Your task to perform on an android device: see creations saved in the google photos Image 0: 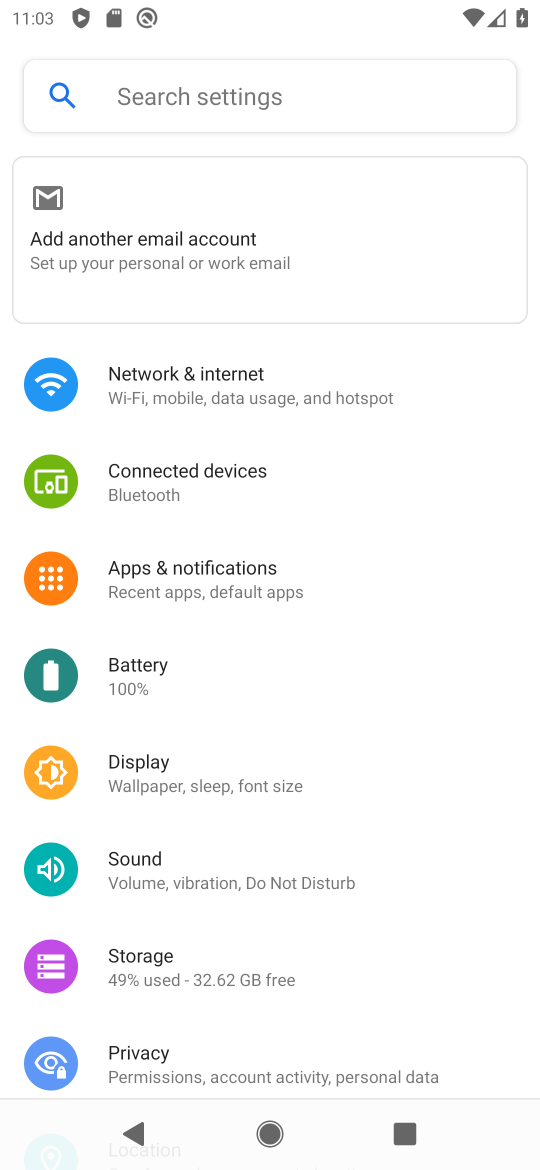
Step 0: press home button
Your task to perform on an android device: see creations saved in the google photos Image 1: 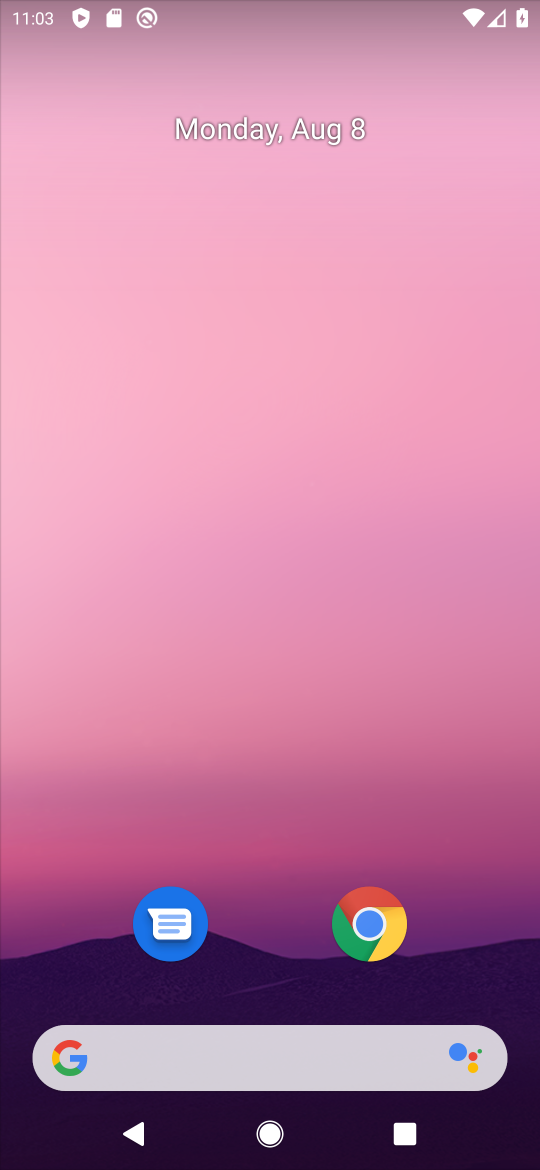
Step 1: drag from (257, 998) to (189, 232)
Your task to perform on an android device: see creations saved in the google photos Image 2: 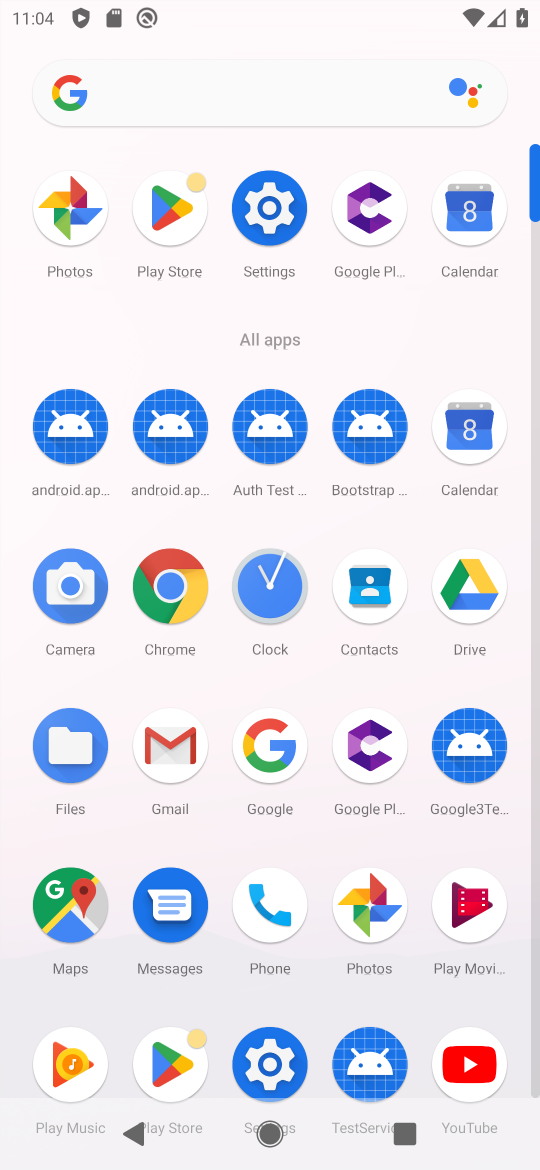
Step 2: click (352, 888)
Your task to perform on an android device: see creations saved in the google photos Image 3: 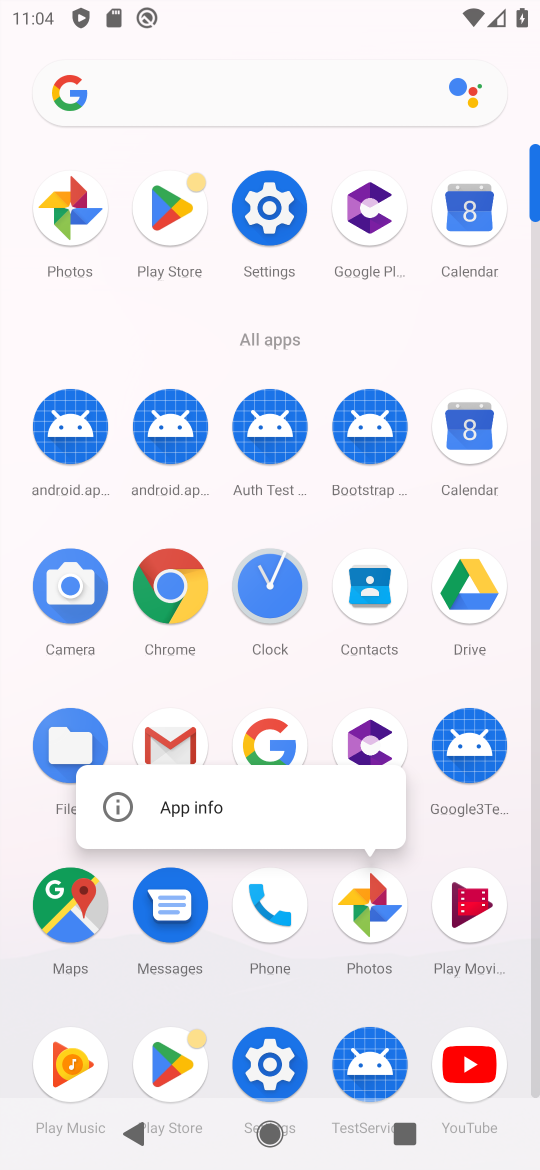
Step 3: click (378, 923)
Your task to perform on an android device: see creations saved in the google photos Image 4: 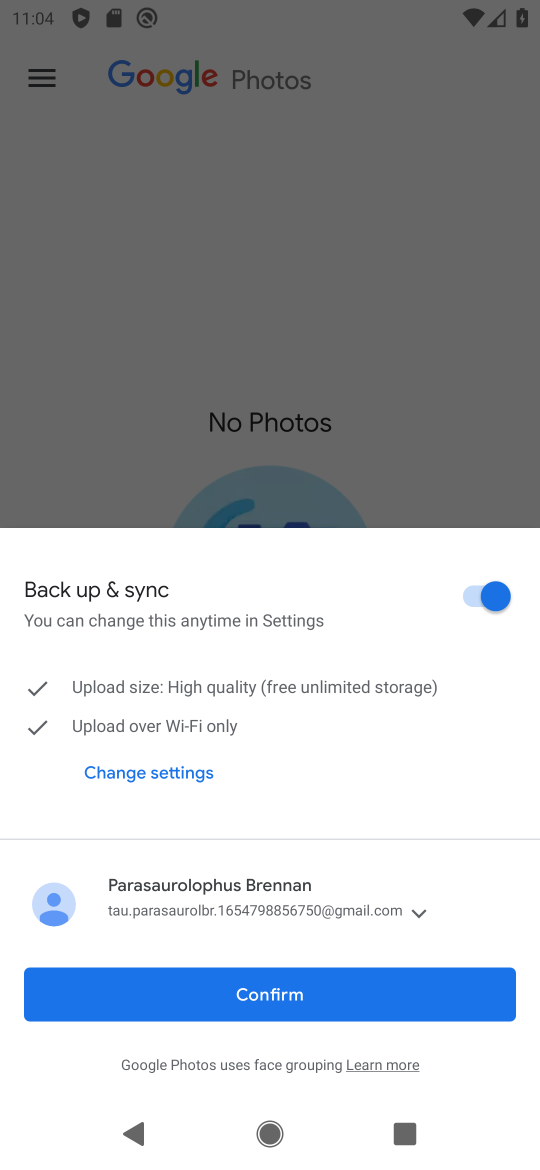
Step 4: click (288, 972)
Your task to perform on an android device: see creations saved in the google photos Image 5: 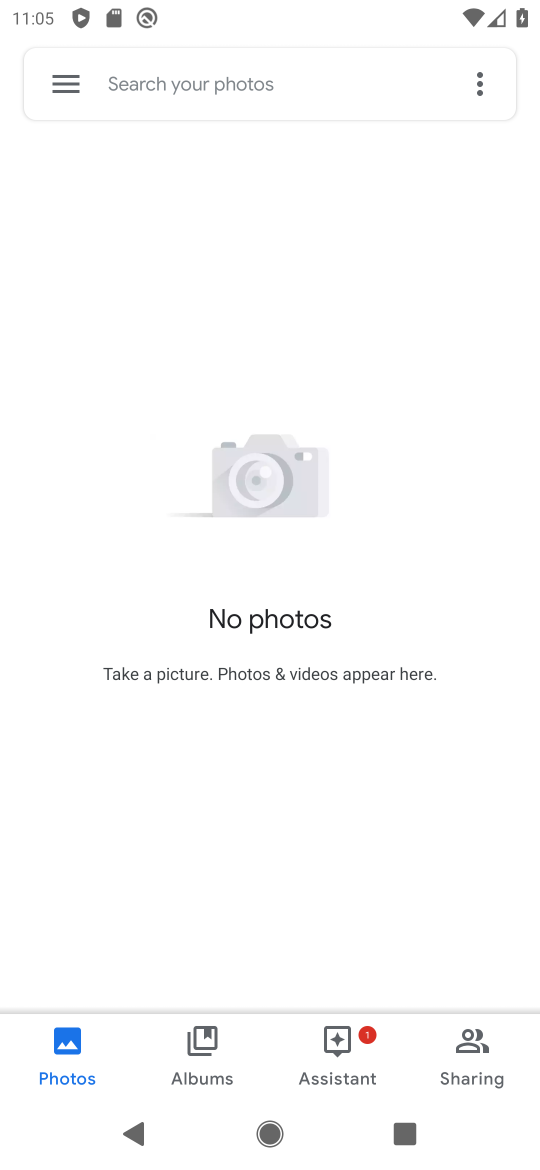
Step 5: click (148, 109)
Your task to perform on an android device: see creations saved in the google photos Image 6: 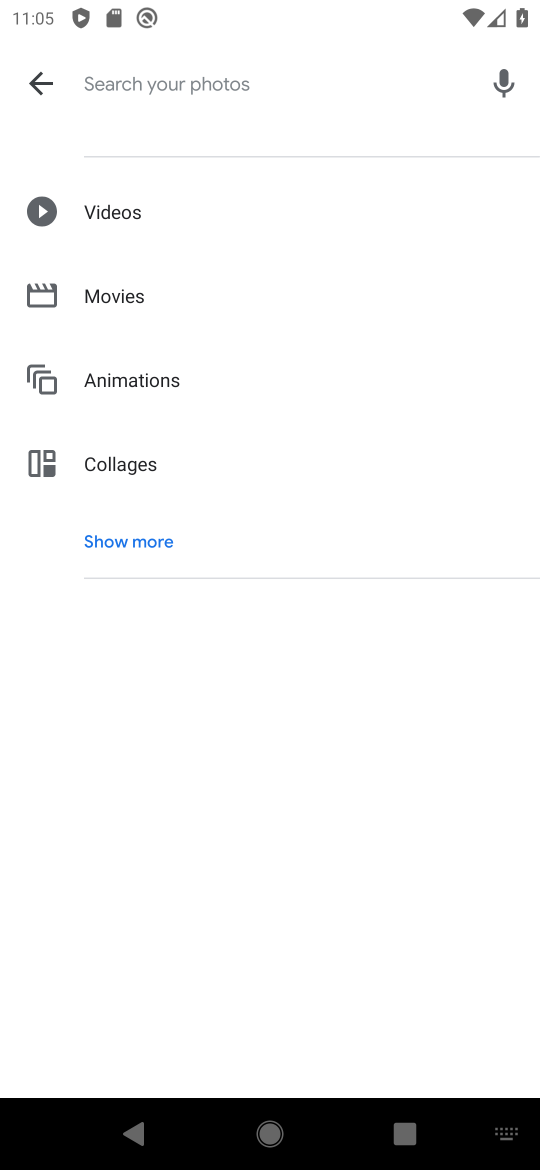
Step 6: click (112, 539)
Your task to perform on an android device: see creations saved in the google photos Image 7: 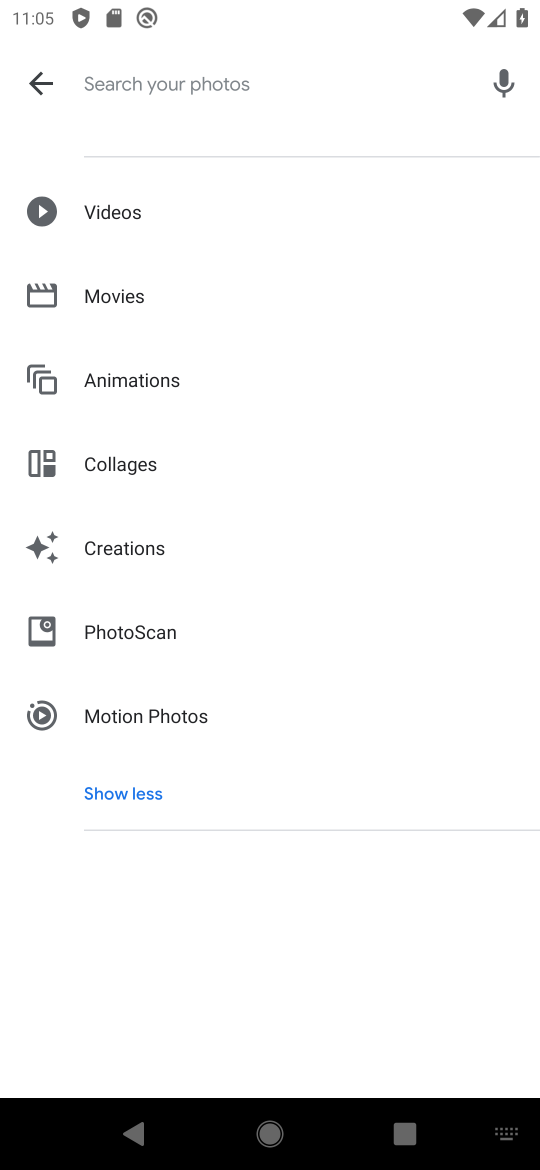
Step 7: click (125, 550)
Your task to perform on an android device: see creations saved in the google photos Image 8: 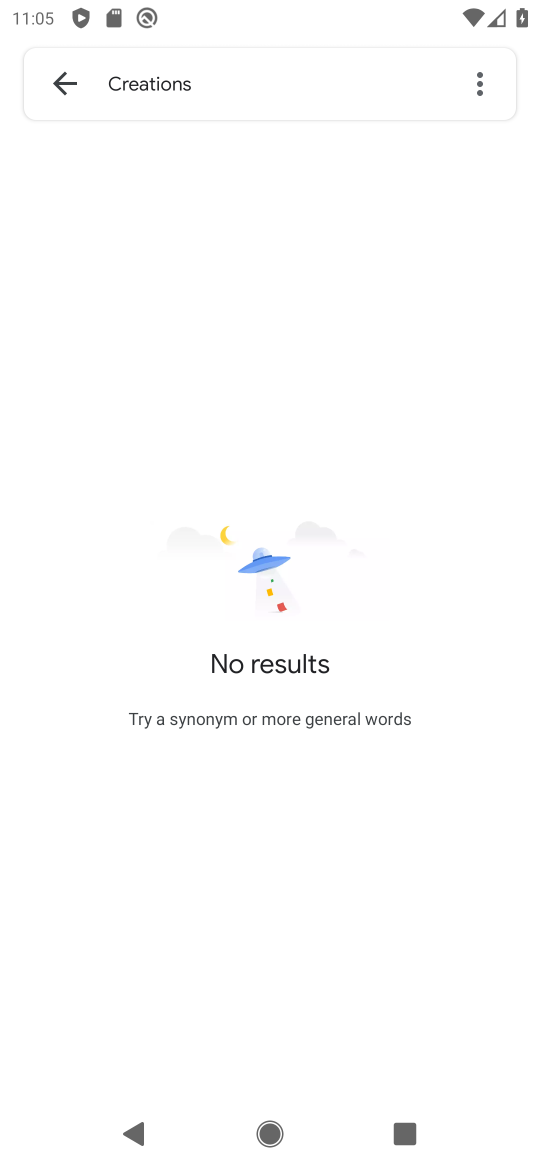
Step 8: task complete